Your task to perform on an android device: Go to notification settings Image 0: 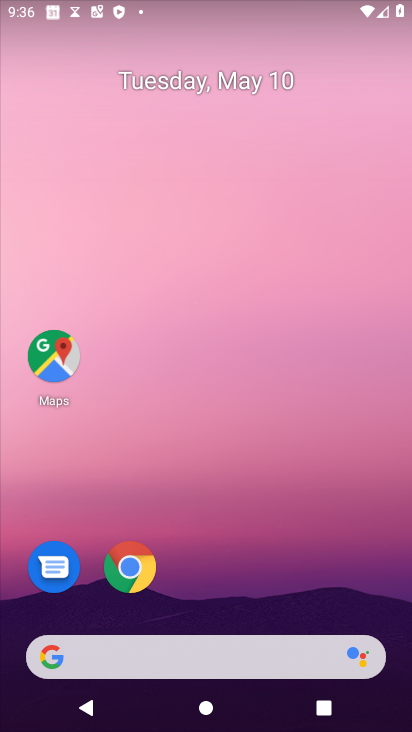
Step 0: press home button
Your task to perform on an android device: Go to notification settings Image 1: 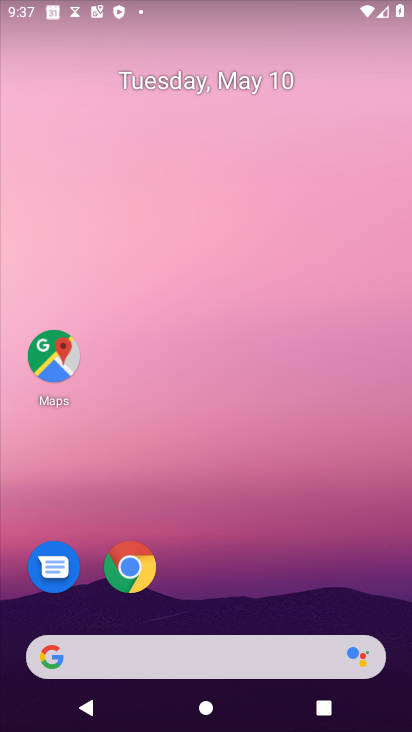
Step 1: drag from (40, 628) to (281, 169)
Your task to perform on an android device: Go to notification settings Image 2: 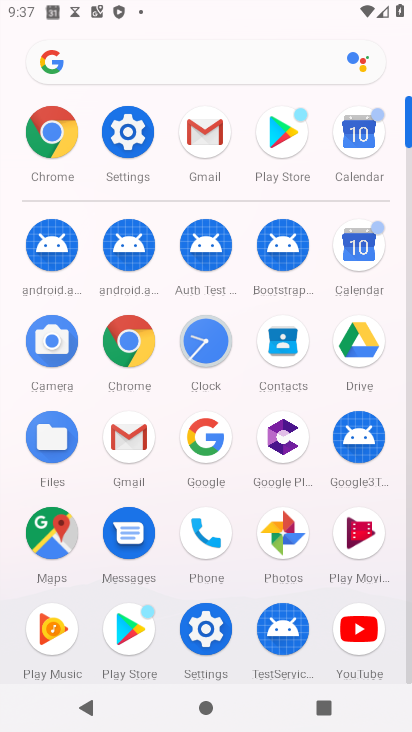
Step 2: click (113, 133)
Your task to perform on an android device: Go to notification settings Image 3: 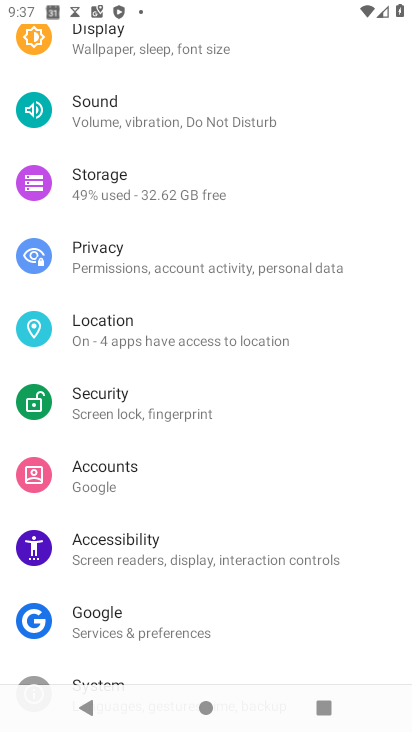
Step 3: drag from (211, 133) to (152, 551)
Your task to perform on an android device: Go to notification settings Image 4: 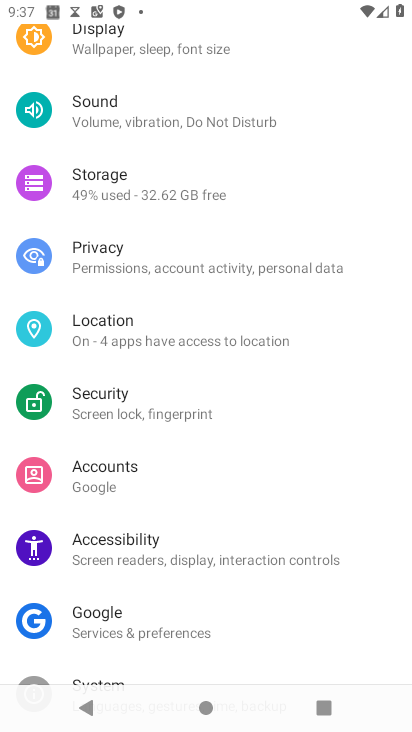
Step 4: drag from (203, 73) to (162, 528)
Your task to perform on an android device: Go to notification settings Image 5: 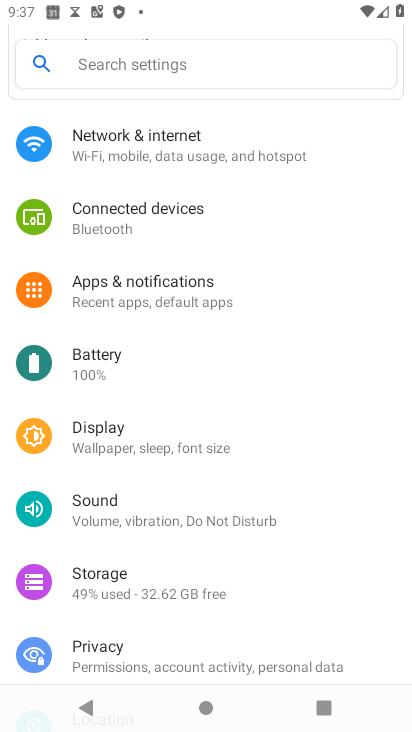
Step 5: click (136, 295)
Your task to perform on an android device: Go to notification settings Image 6: 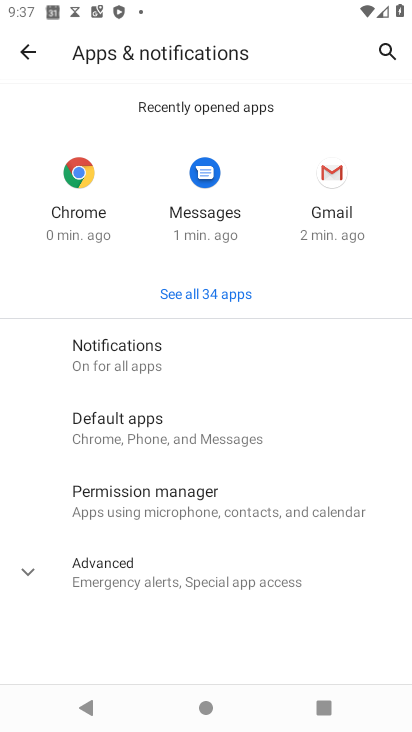
Step 6: click (122, 355)
Your task to perform on an android device: Go to notification settings Image 7: 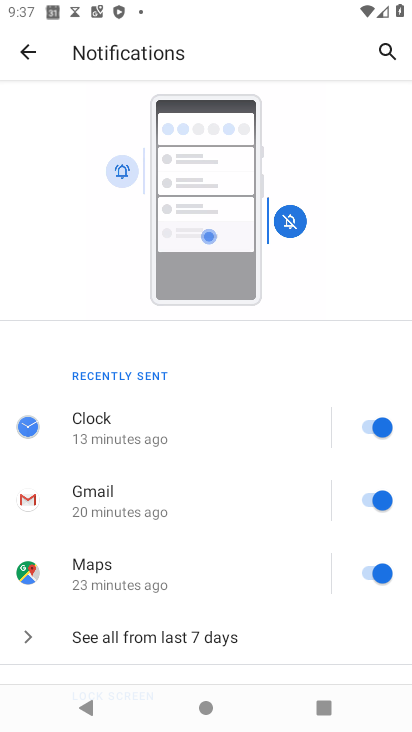
Step 7: task complete